Your task to perform on an android device: uninstall "DuckDuckGo Privacy Browser" Image 0: 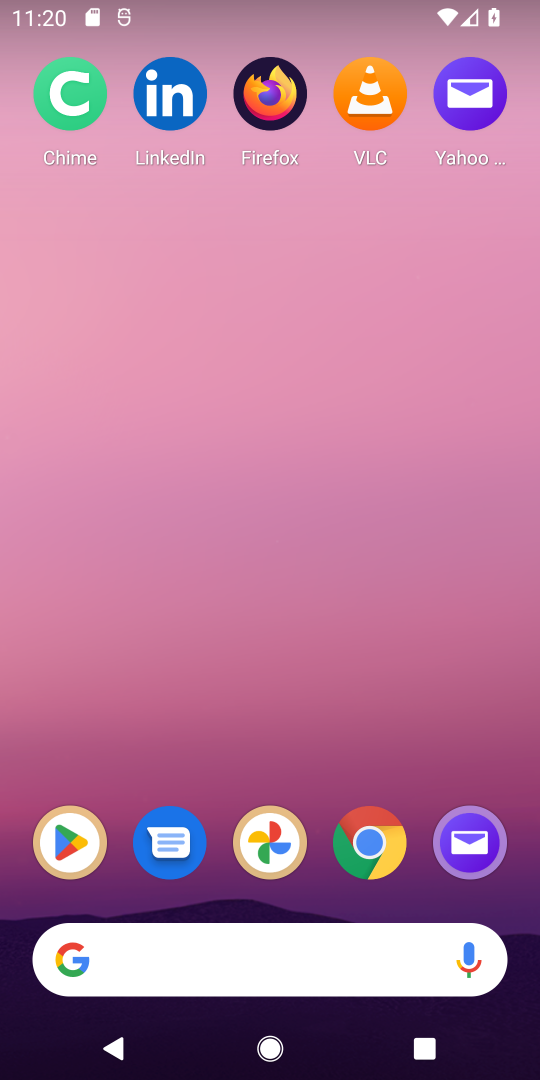
Step 0: press home button
Your task to perform on an android device: uninstall "DuckDuckGo Privacy Browser" Image 1: 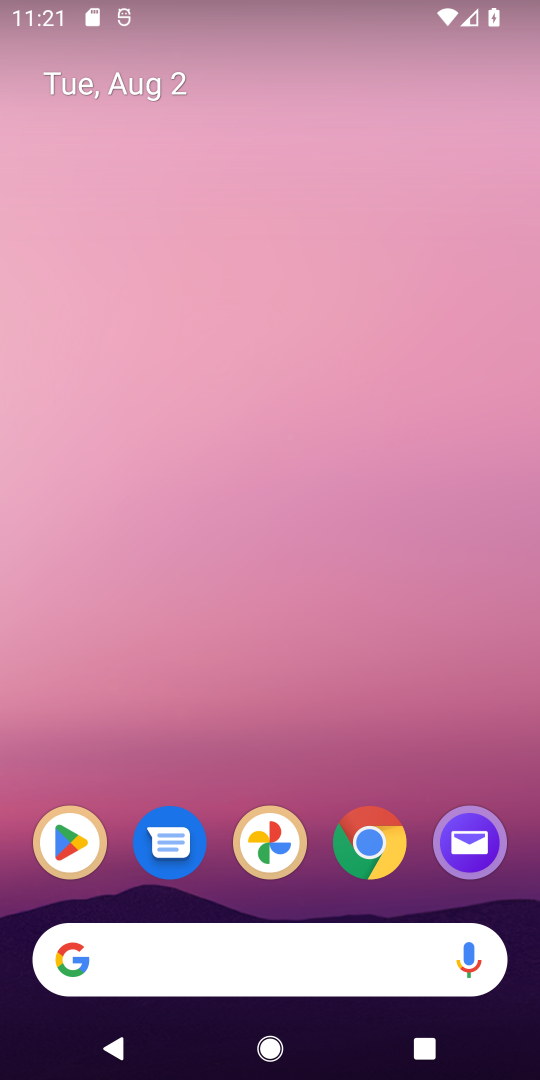
Step 1: click (67, 862)
Your task to perform on an android device: uninstall "DuckDuckGo Privacy Browser" Image 2: 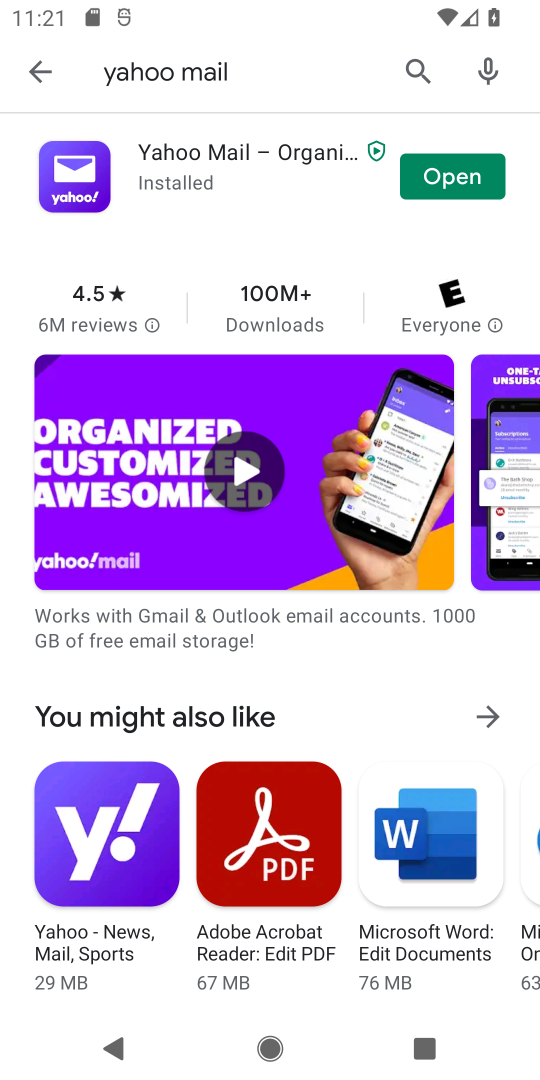
Step 2: click (418, 76)
Your task to perform on an android device: uninstall "DuckDuckGo Privacy Browser" Image 3: 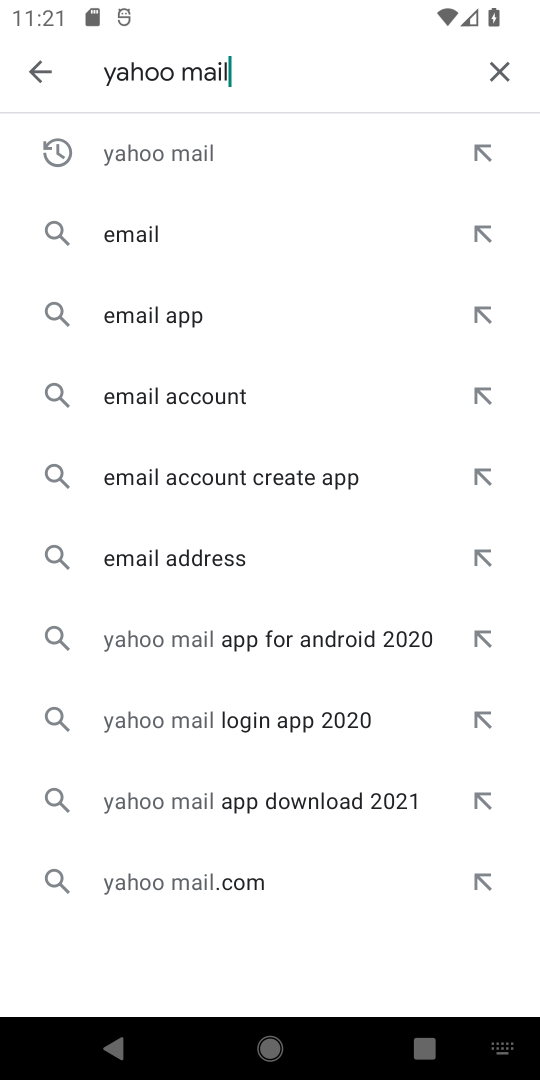
Step 3: click (497, 67)
Your task to perform on an android device: uninstall "DuckDuckGo Privacy Browser" Image 4: 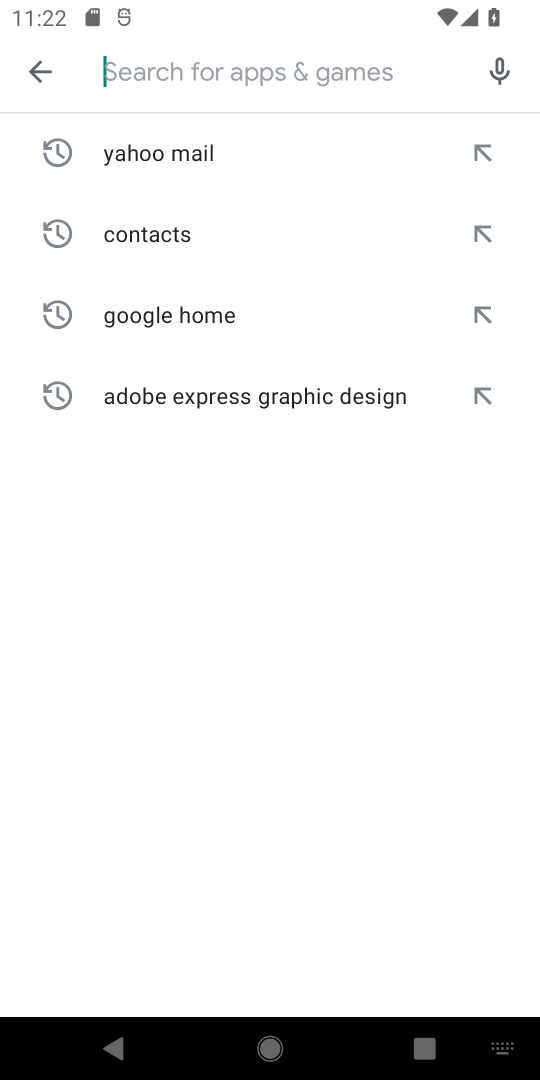
Step 4: click (230, 73)
Your task to perform on an android device: uninstall "DuckDuckGo Privacy Browser" Image 5: 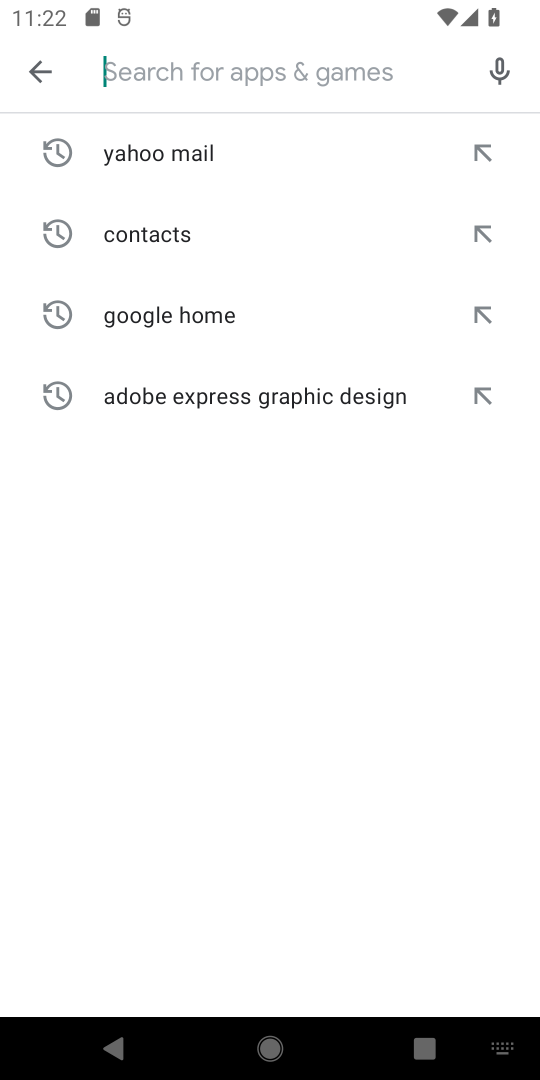
Step 5: click (217, 49)
Your task to perform on an android device: uninstall "DuckDuckGo Privacy Browser" Image 6: 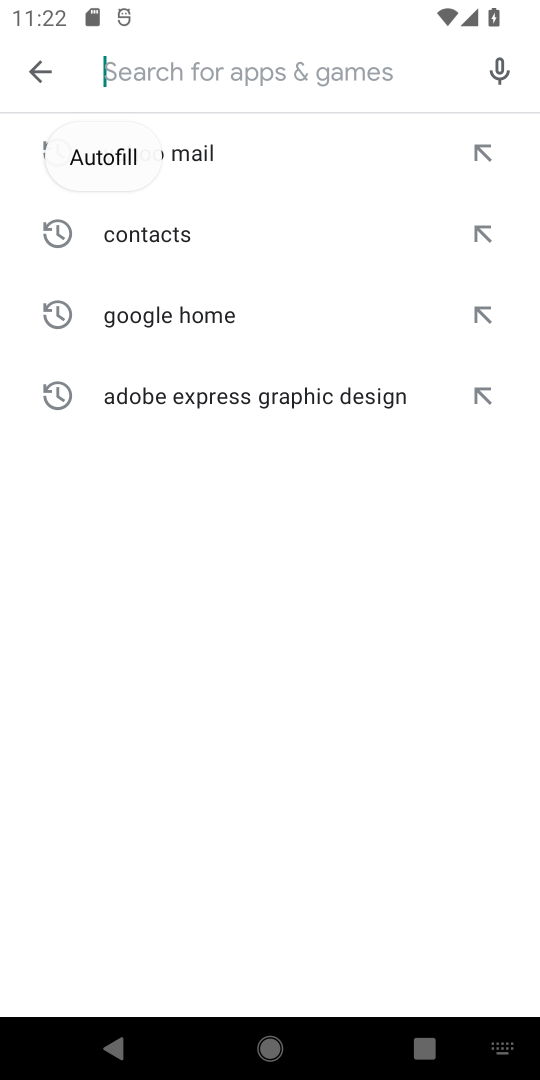
Step 6: click (229, 68)
Your task to perform on an android device: uninstall "DuckDuckGo Privacy Browser" Image 7: 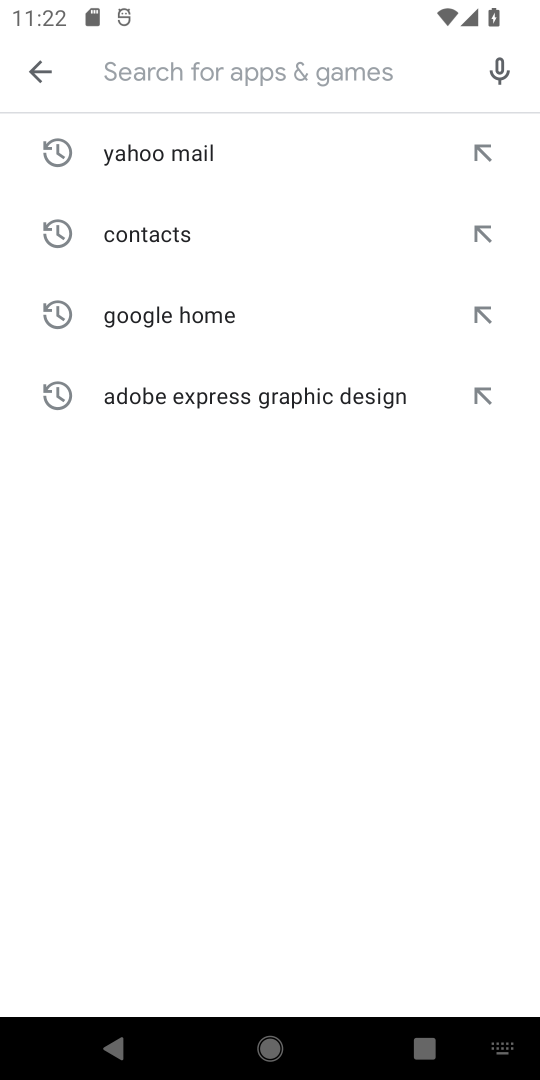
Step 7: type "DuckDuckGo"
Your task to perform on an android device: uninstall "DuckDuckGo Privacy Browser" Image 8: 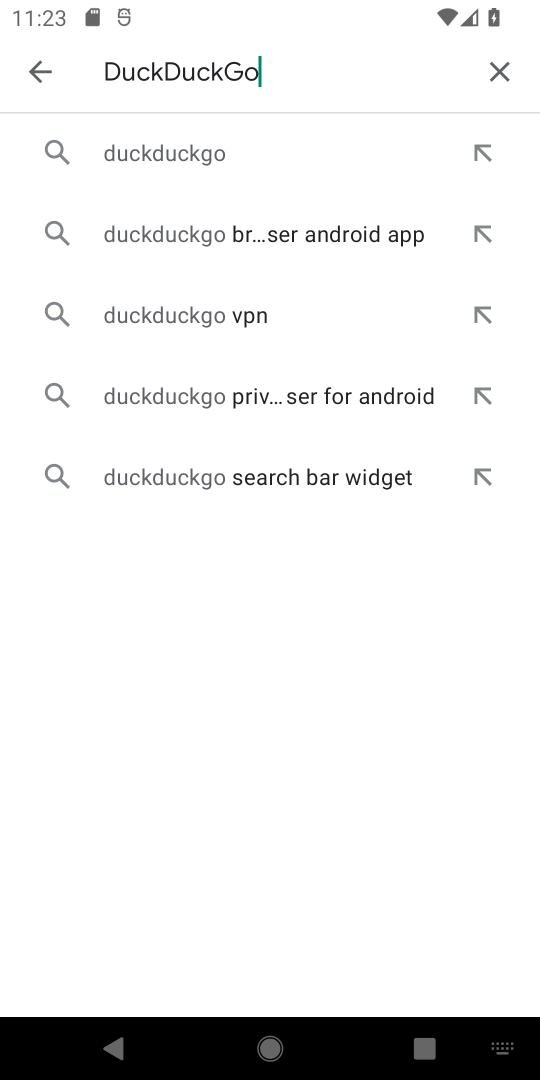
Step 8: click (195, 151)
Your task to perform on an android device: uninstall "DuckDuckGo Privacy Browser" Image 9: 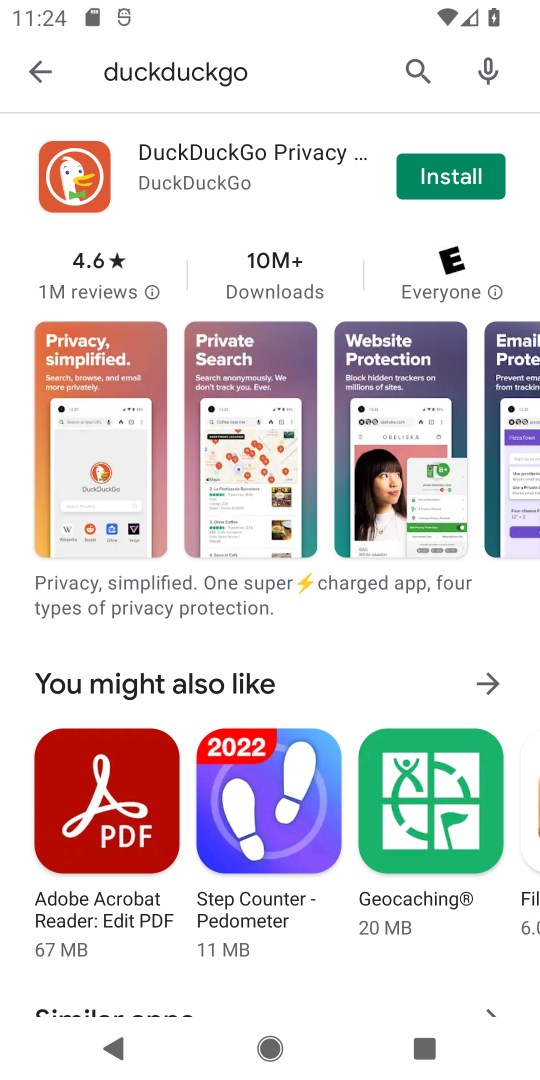
Step 9: task complete